Your task to perform on an android device: Clear the shopping cart on costco.com. Add "beats solo 3" to the cart on costco.com, then select checkout. Image 0: 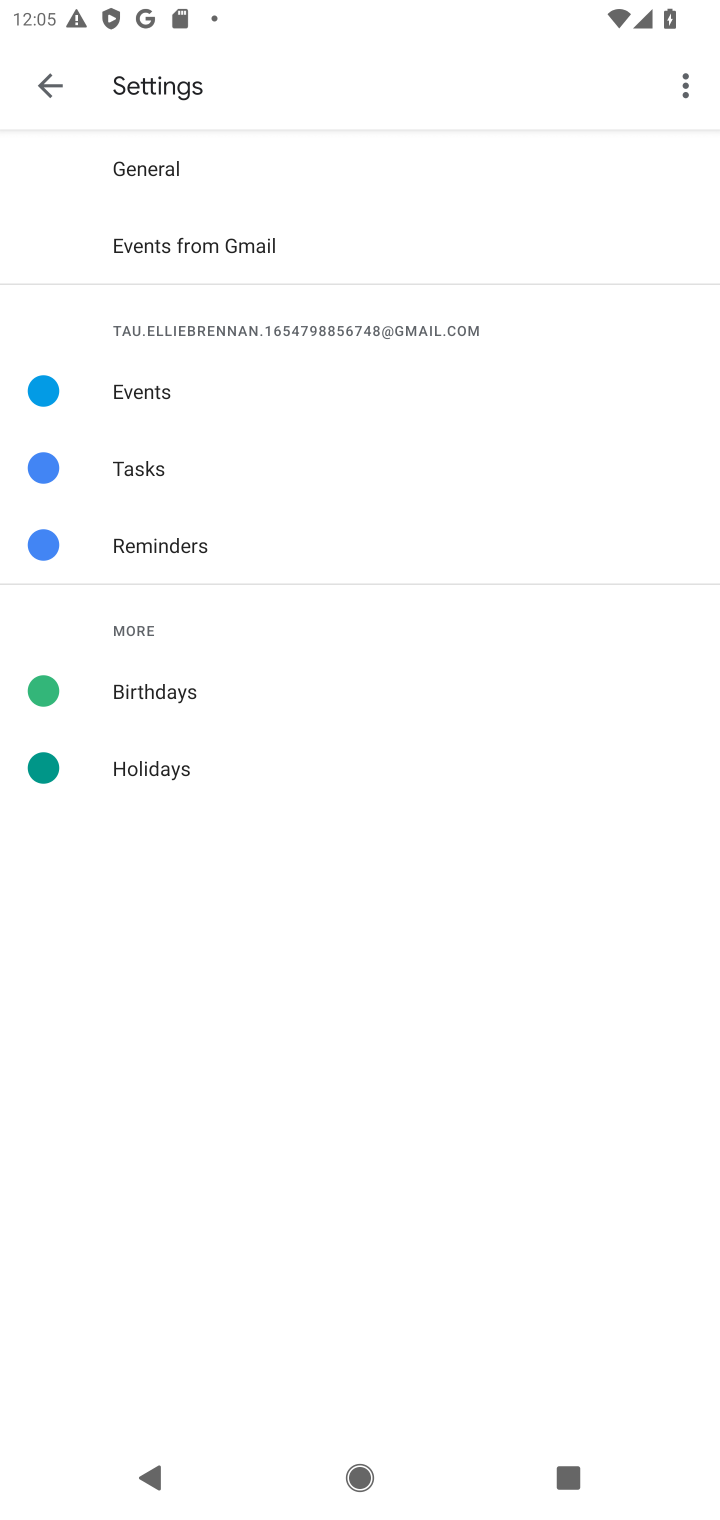
Step 0: press home button
Your task to perform on an android device: Clear the shopping cart on costco.com. Add "beats solo 3" to the cart on costco.com, then select checkout. Image 1: 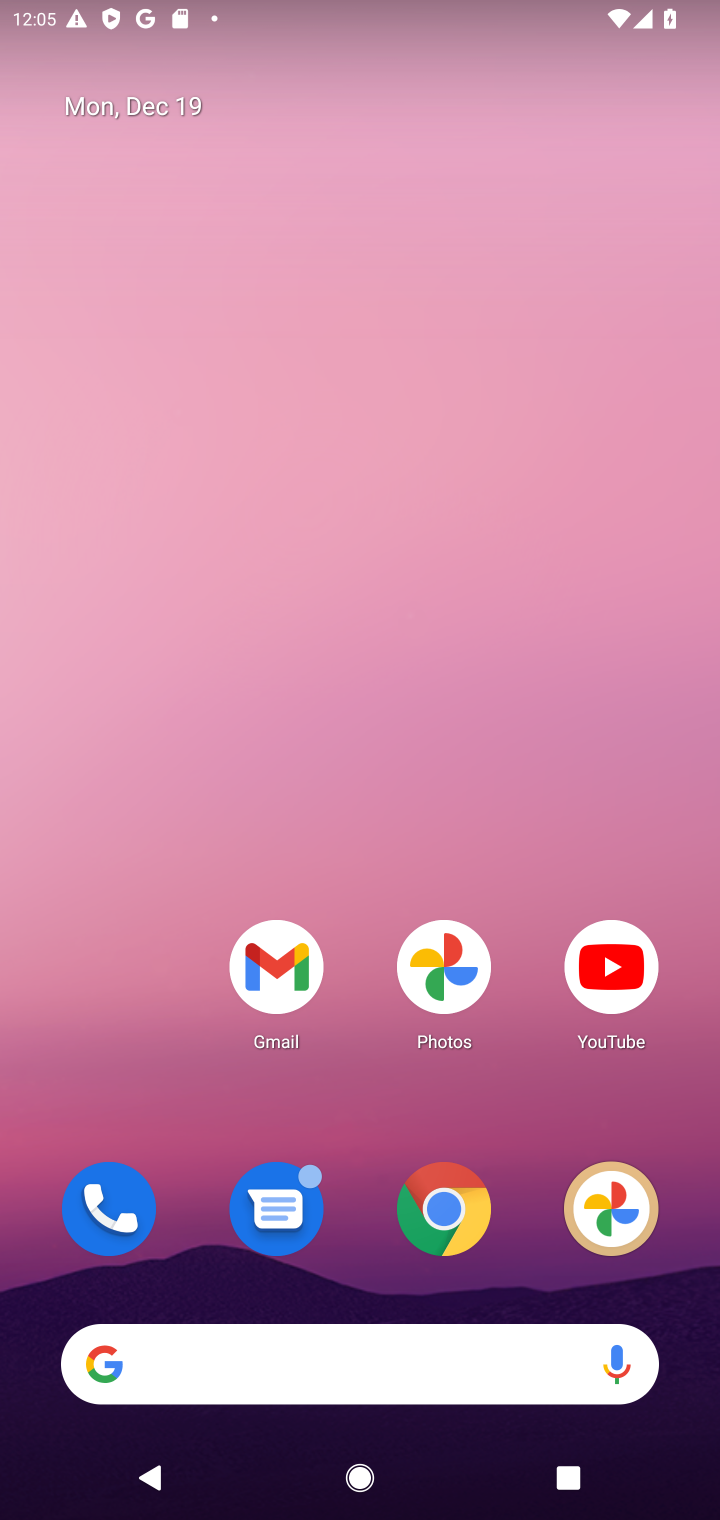
Step 1: click (434, 1215)
Your task to perform on an android device: Clear the shopping cart on costco.com. Add "beats solo 3" to the cart on costco.com, then select checkout. Image 2: 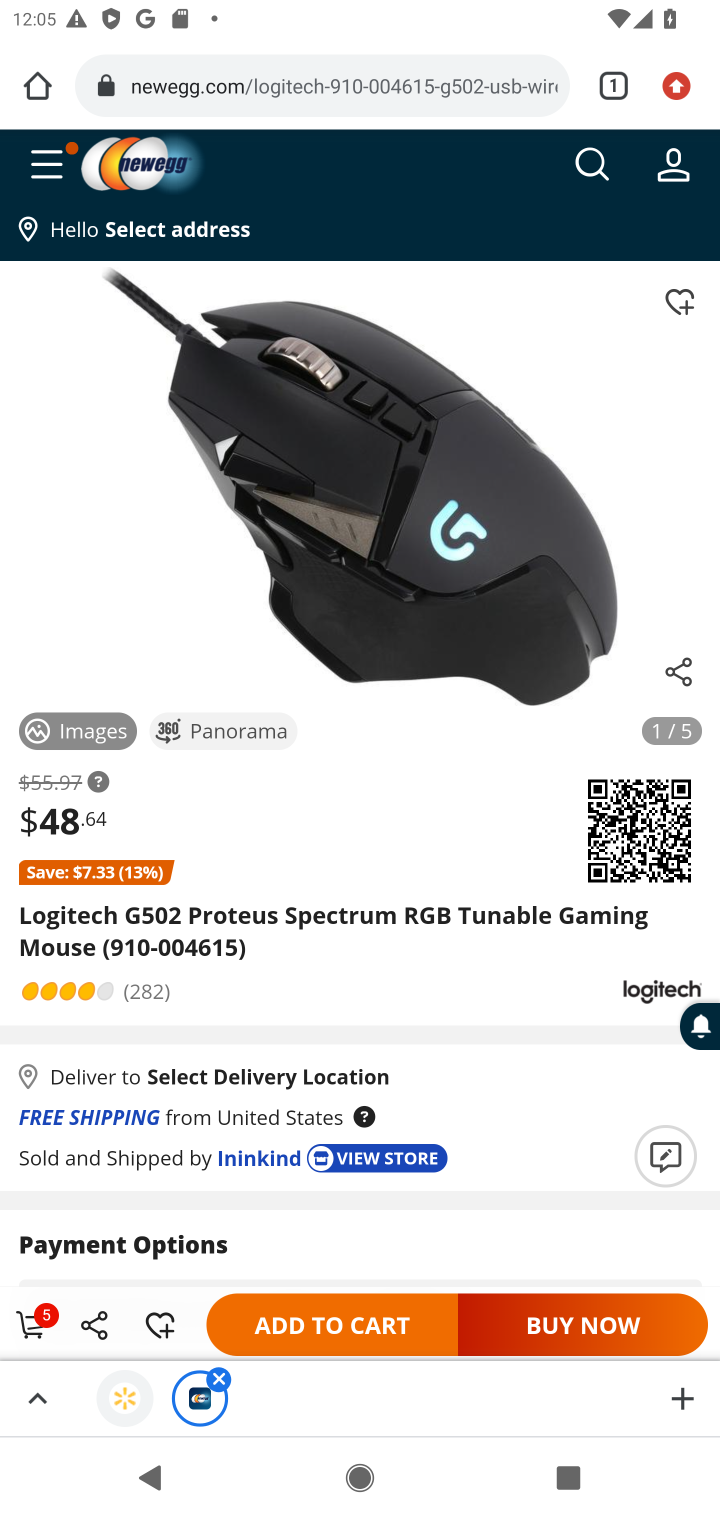
Step 2: click (318, 98)
Your task to perform on an android device: Clear the shopping cart on costco.com. Add "beats solo 3" to the cart on costco.com, then select checkout. Image 3: 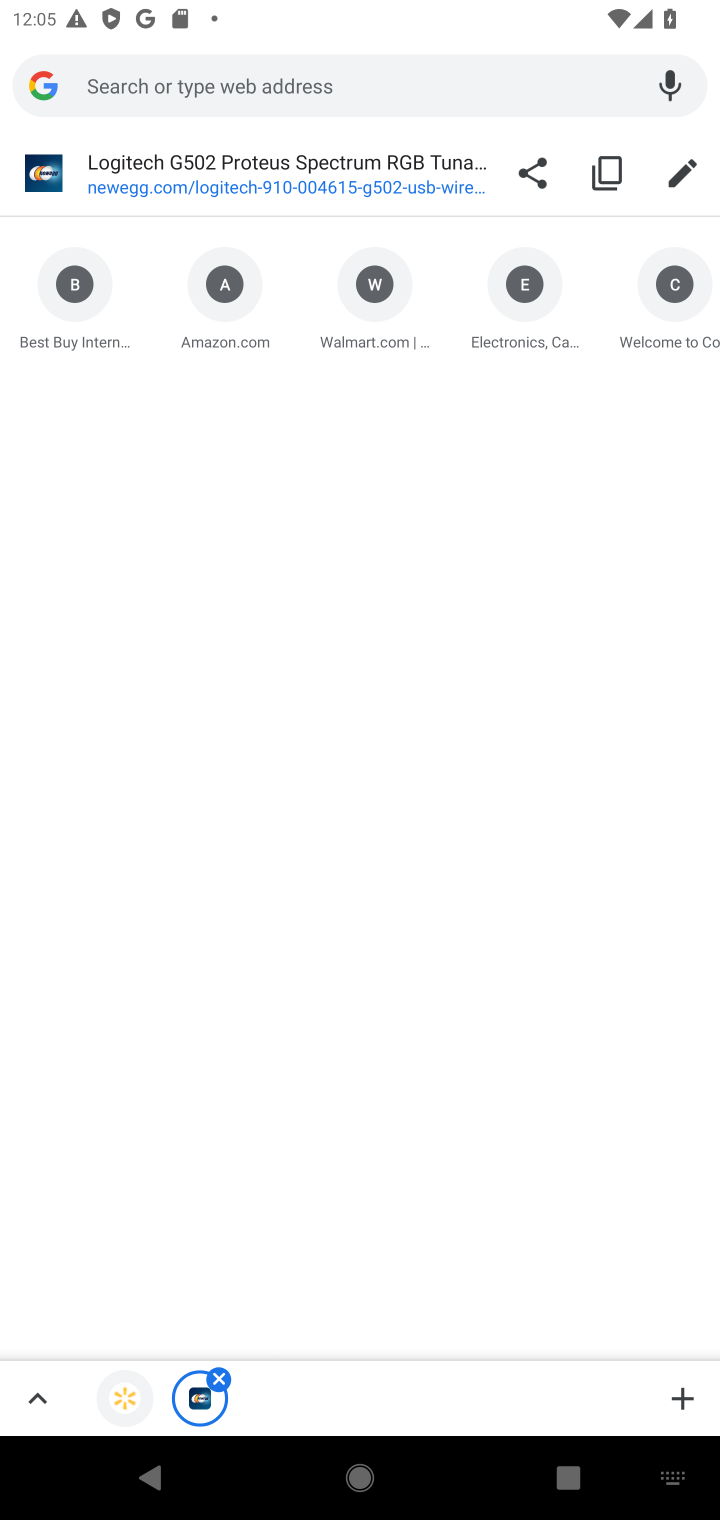
Step 3: type "COSTCO"
Your task to perform on an android device: Clear the shopping cart on costco.com. Add "beats solo 3" to the cart on costco.com, then select checkout. Image 4: 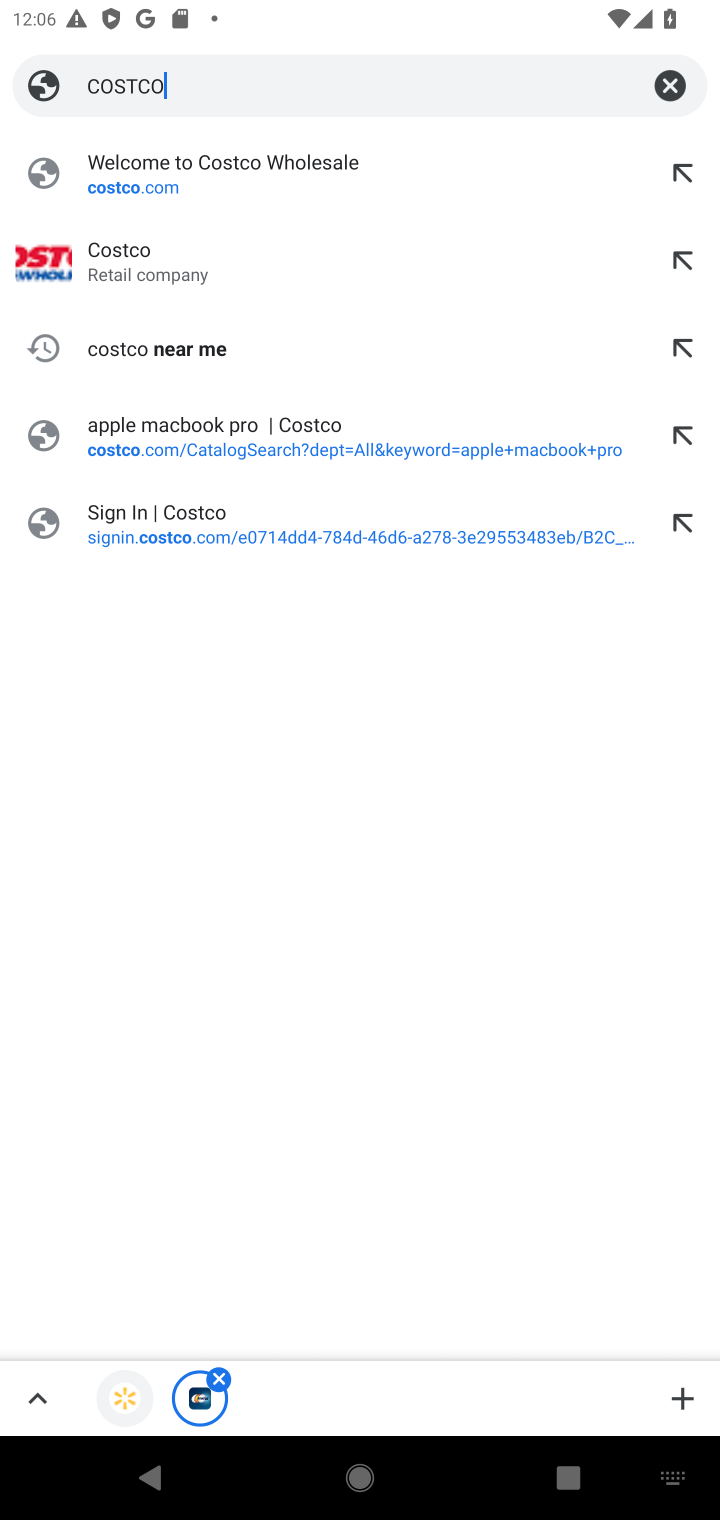
Step 4: click (209, 168)
Your task to perform on an android device: Clear the shopping cart on costco.com. Add "beats solo 3" to the cart on costco.com, then select checkout. Image 5: 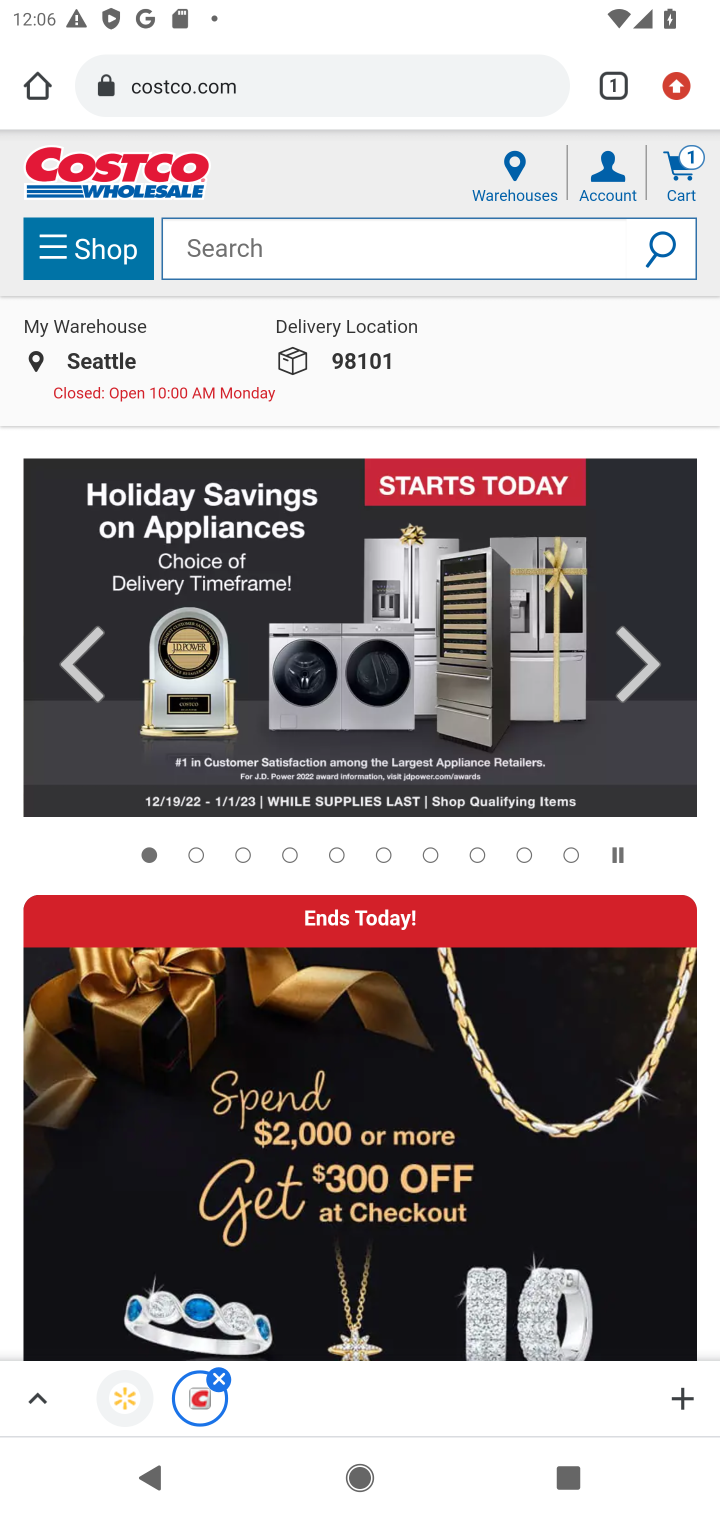
Step 5: click (675, 166)
Your task to perform on an android device: Clear the shopping cart on costco.com. Add "beats solo 3" to the cart on costco.com, then select checkout. Image 6: 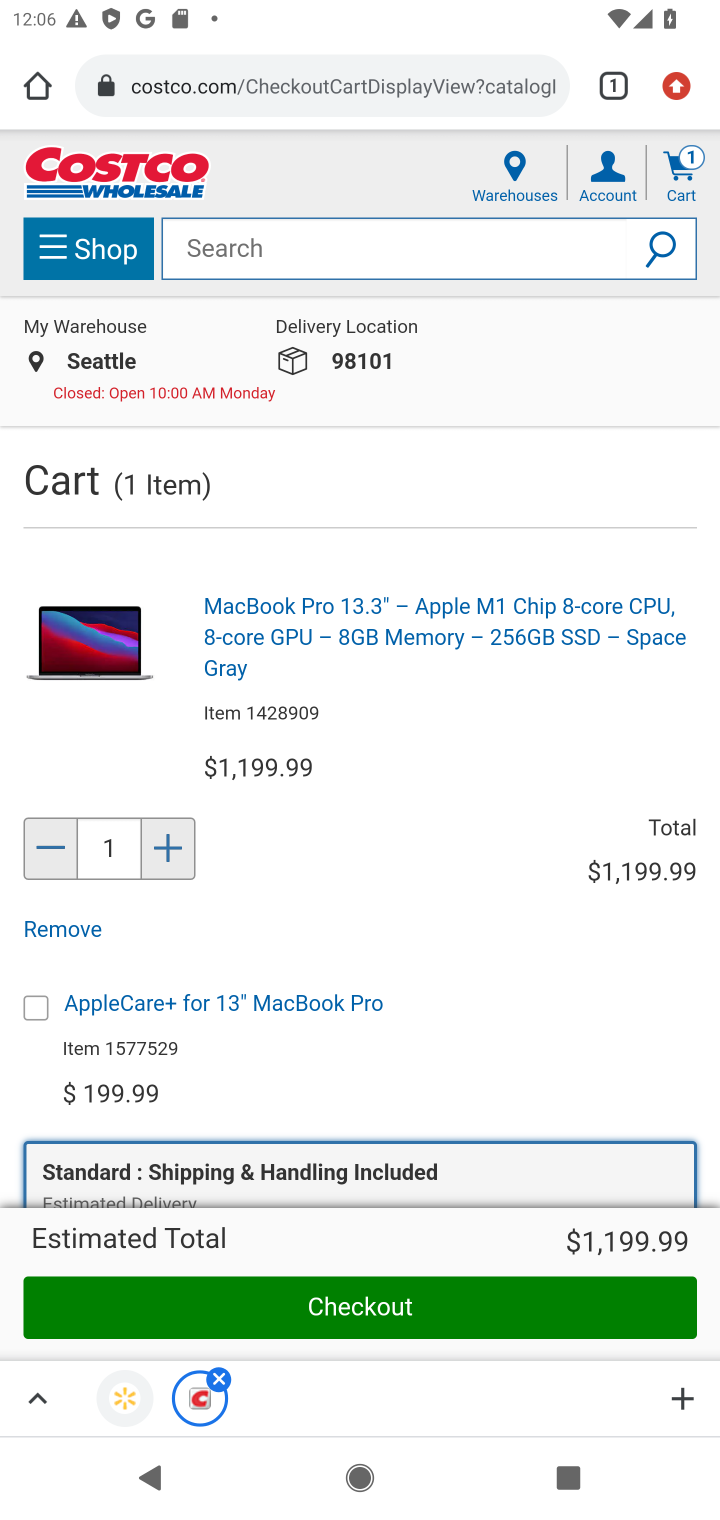
Step 6: click (57, 930)
Your task to perform on an android device: Clear the shopping cart on costco.com. Add "beats solo 3" to the cart on costco.com, then select checkout. Image 7: 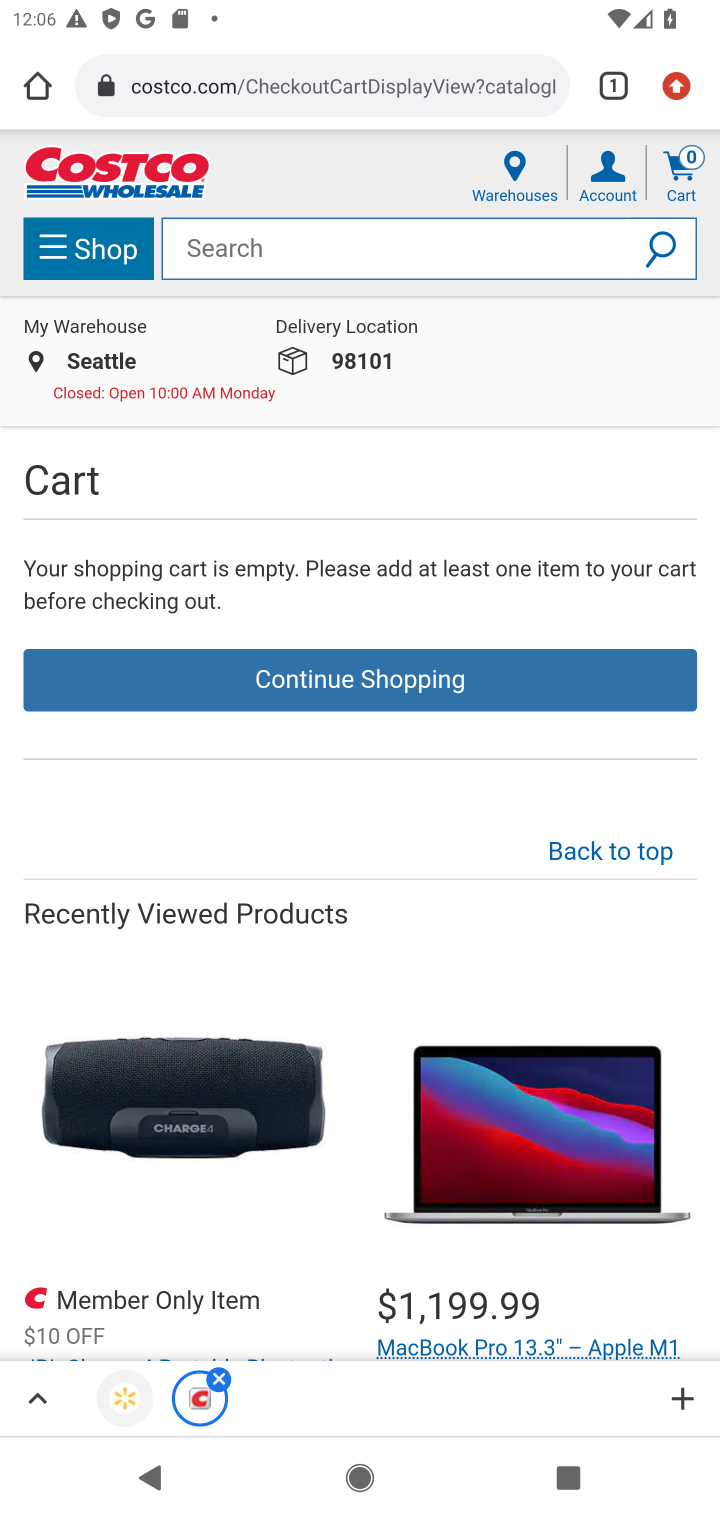
Step 7: click (327, 248)
Your task to perform on an android device: Clear the shopping cart on costco.com. Add "beats solo 3" to the cart on costco.com, then select checkout. Image 8: 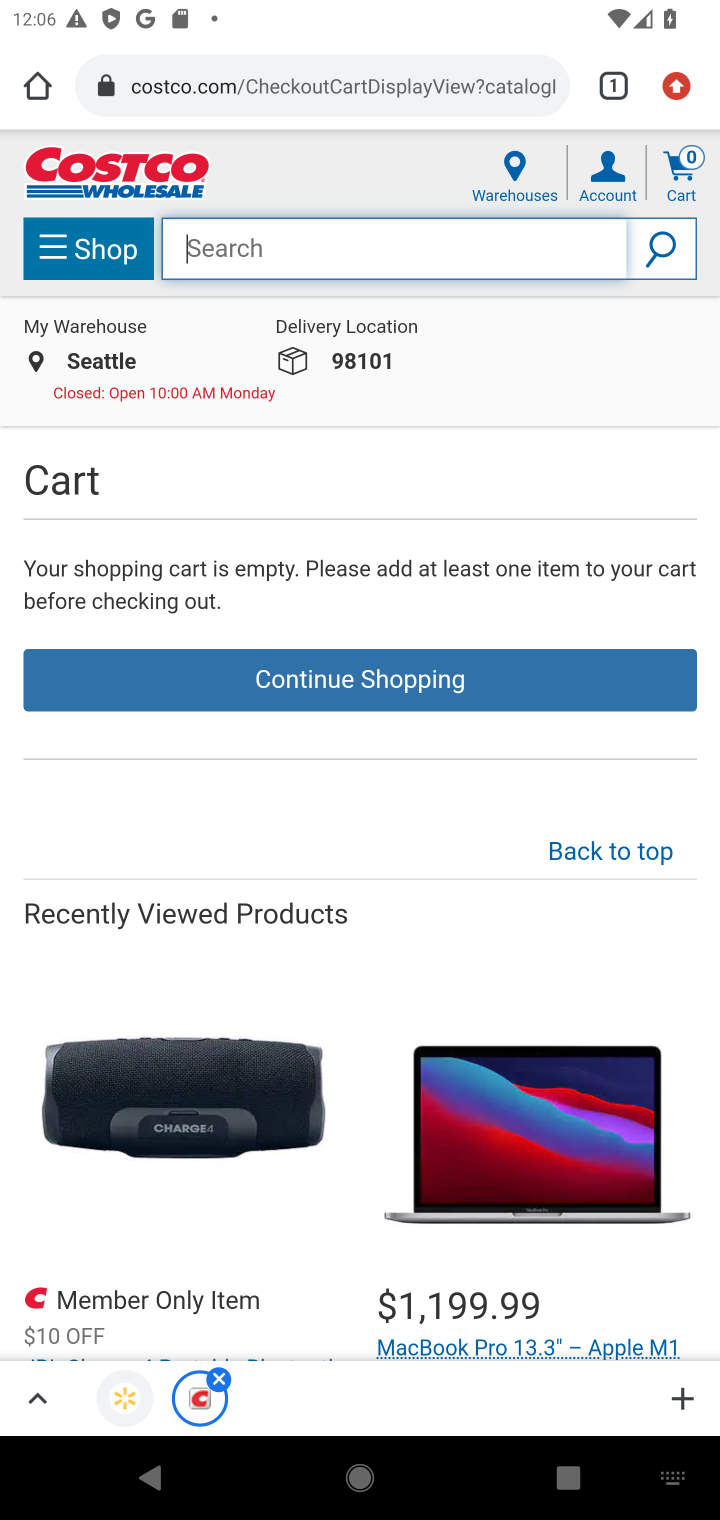
Step 8: type "beats solo 3"
Your task to perform on an android device: Clear the shopping cart on costco.com. Add "beats solo 3" to the cart on costco.com, then select checkout. Image 9: 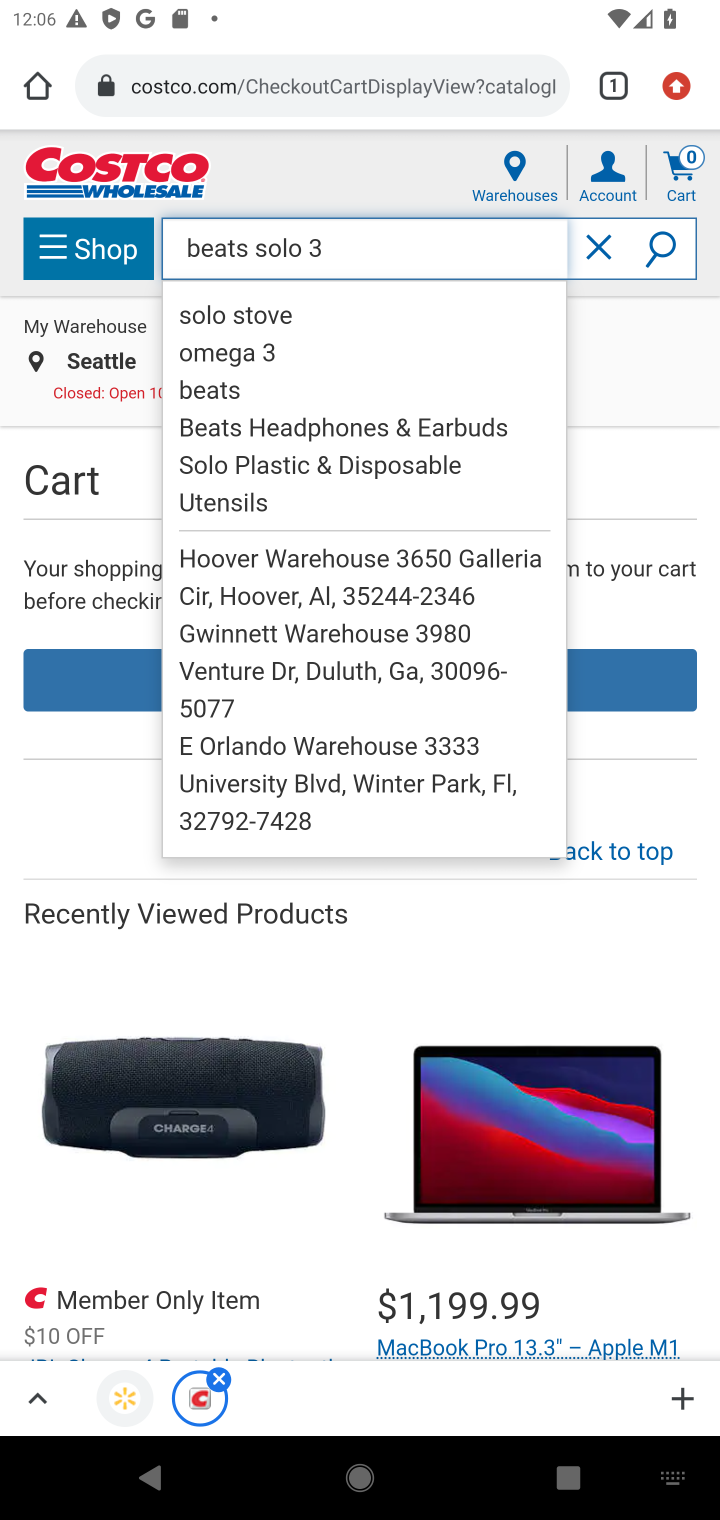
Step 9: click (655, 247)
Your task to perform on an android device: Clear the shopping cart on costco.com. Add "beats solo 3" to the cart on costco.com, then select checkout. Image 10: 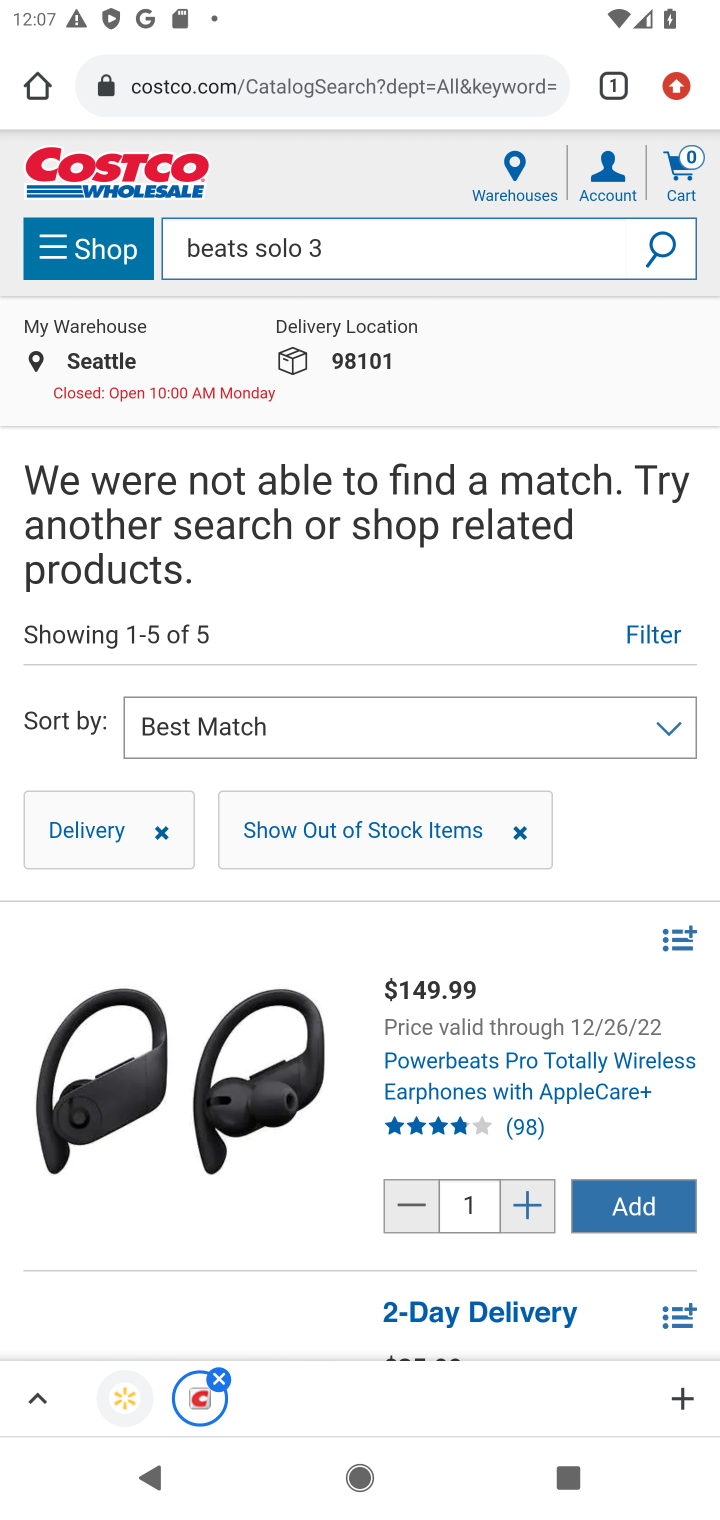
Step 10: click (630, 1213)
Your task to perform on an android device: Clear the shopping cart on costco.com. Add "beats solo 3" to the cart on costco.com, then select checkout. Image 11: 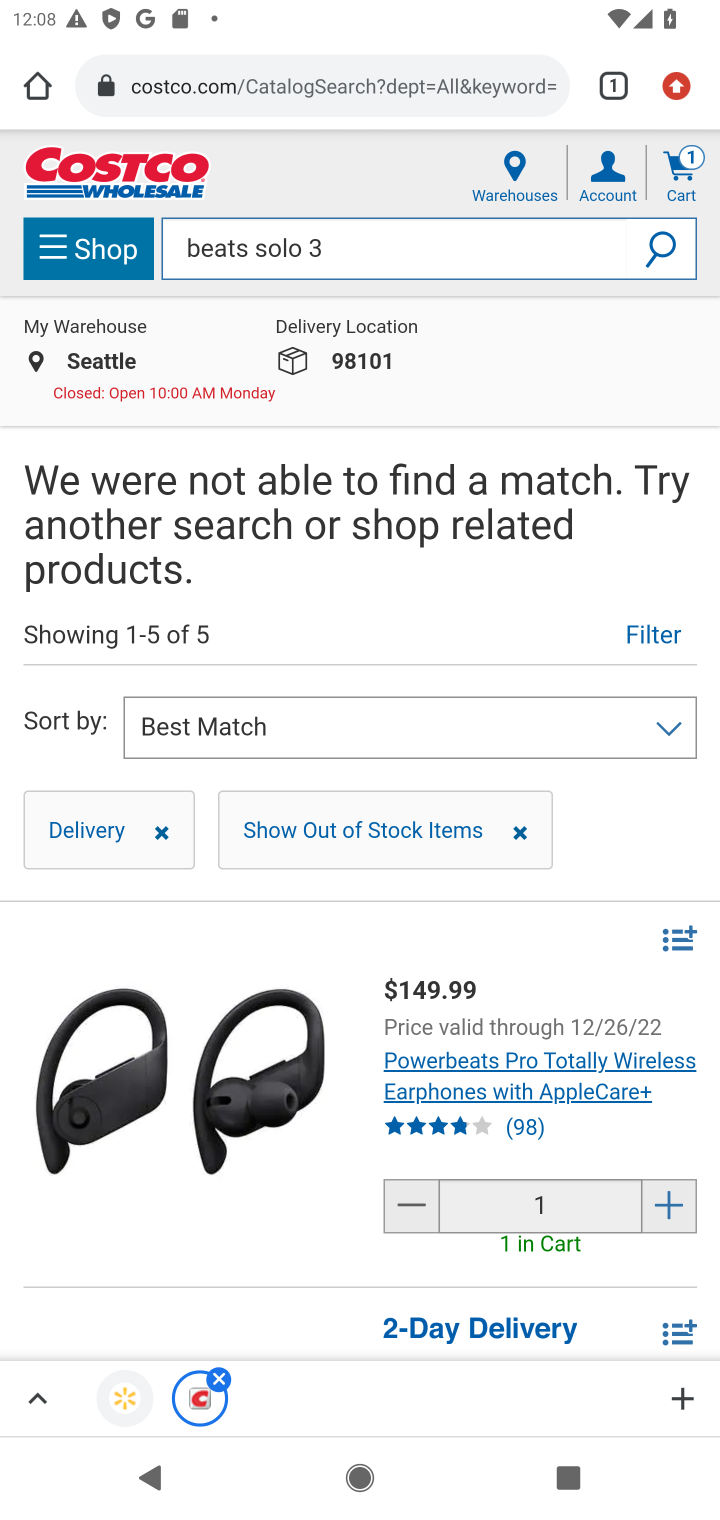
Step 11: click (688, 180)
Your task to perform on an android device: Clear the shopping cart on costco.com. Add "beats solo 3" to the cart on costco.com, then select checkout. Image 12: 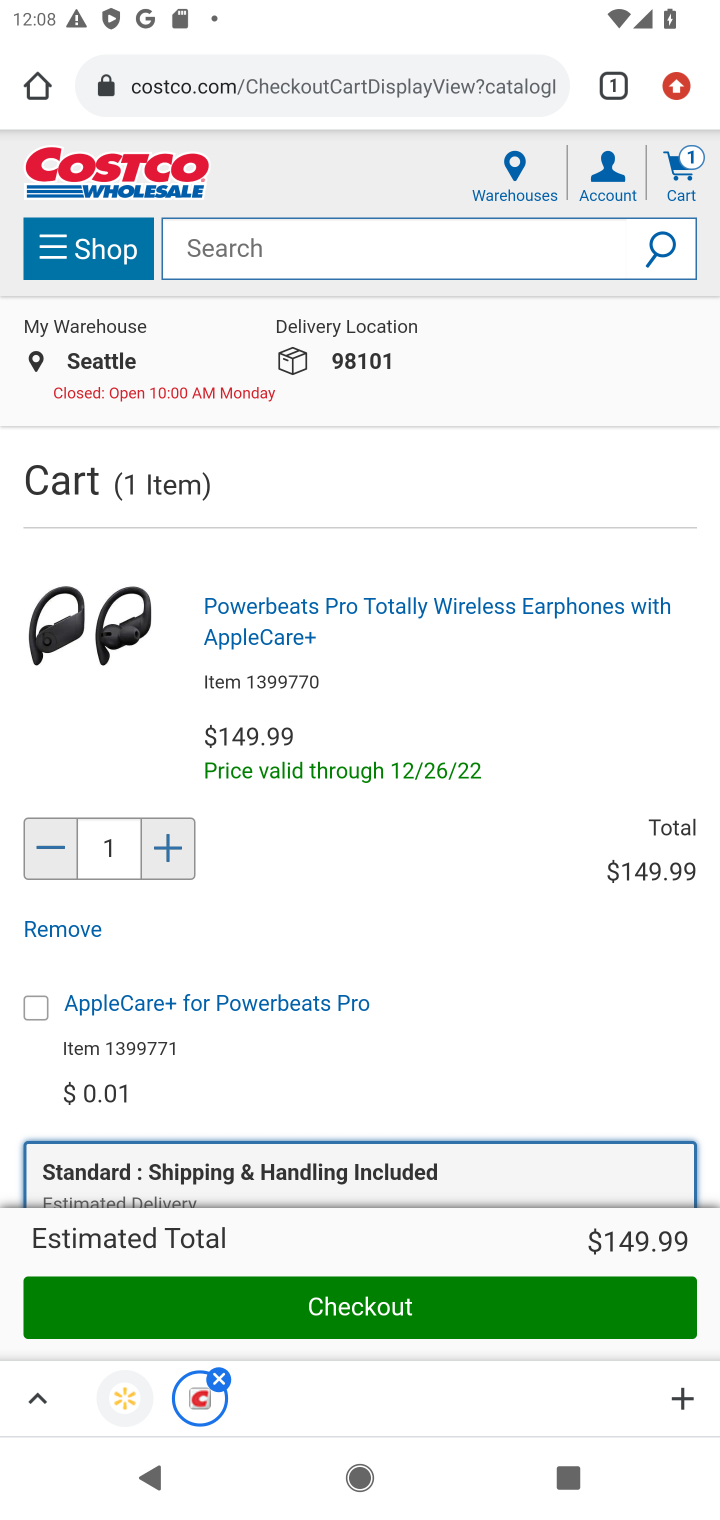
Step 12: click (371, 1312)
Your task to perform on an android device: Clear the shopping cart on costco.com. Add "beats solo 3" to the cart on costco.com, then select checkout. Image 13: 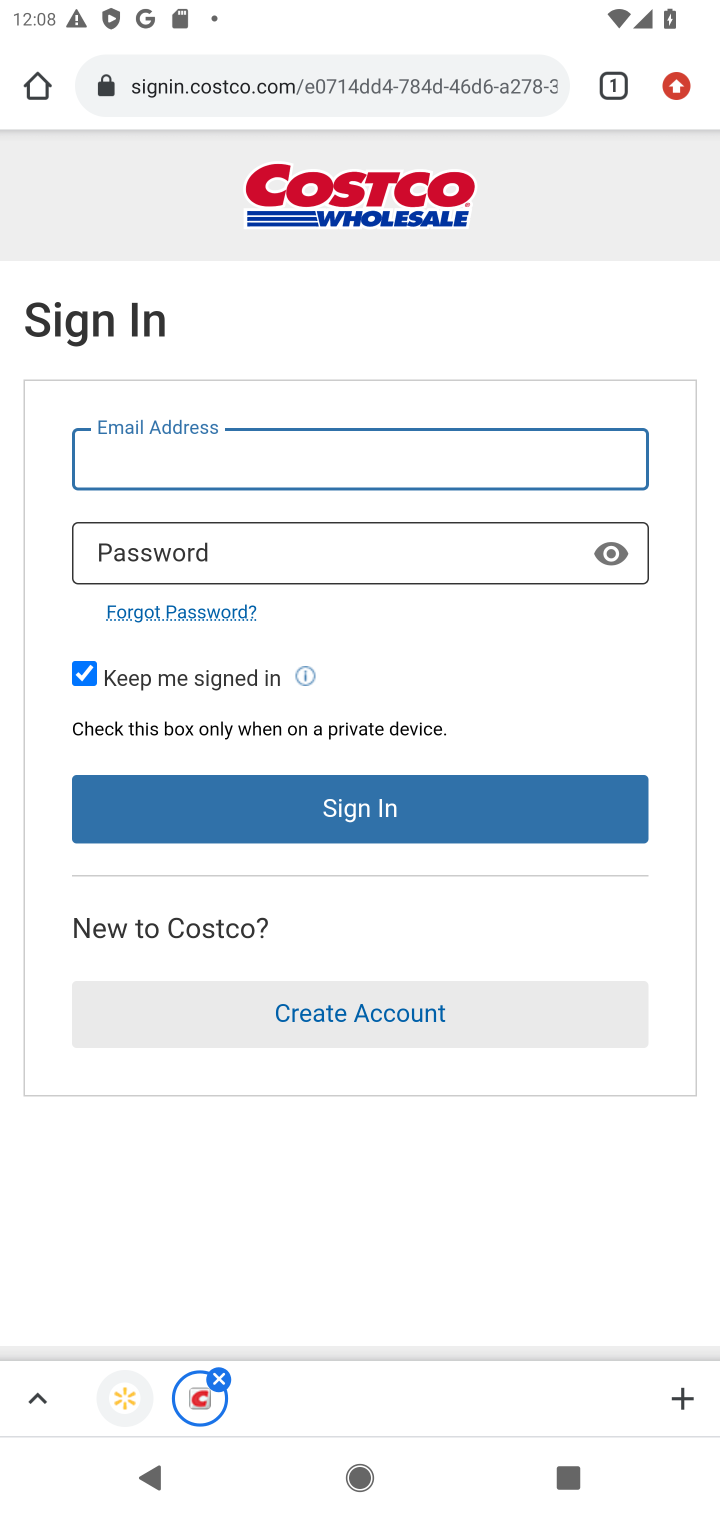
Step 13: task complete